Your task to perform on an android device: turn notification dots off Image 0: 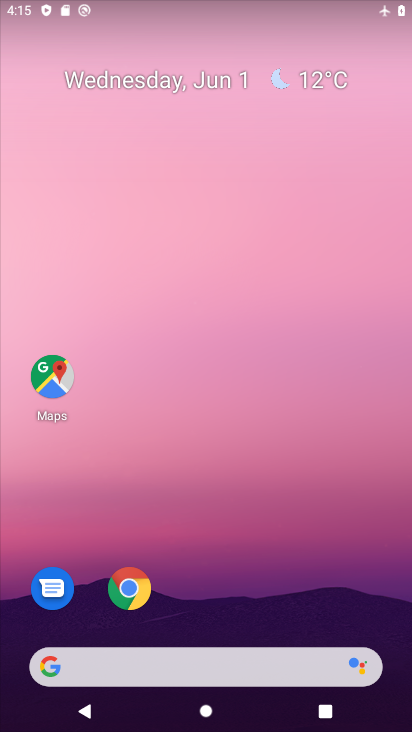
Step 0: drag from (317, 565) to (265, 42)
Your task to perform on an android device: turn notification dots off Image 1: 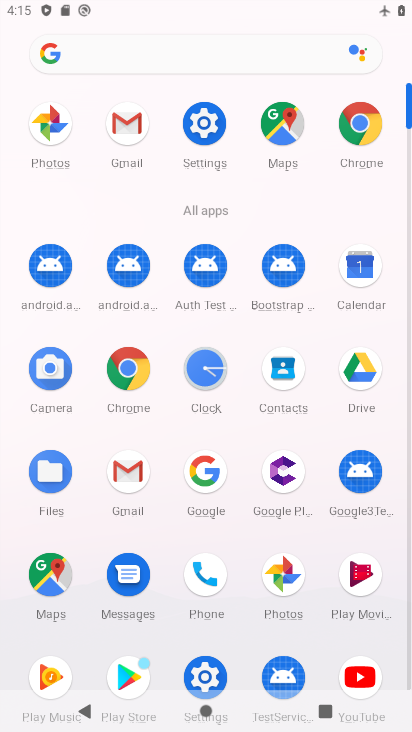
Step 1: click (210, 130)
Your task to perform on an android device: turn notification dots off Image 2: 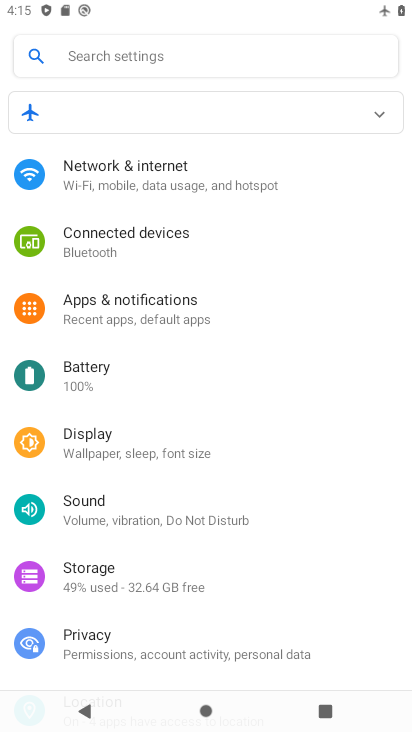
Step 2: click (183, 308)
Your task to perform on an android device: turn notification dots off Image 3: 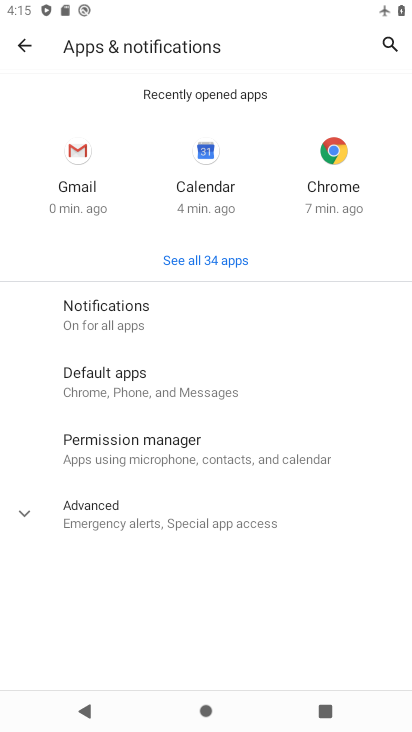
Step 3: click (120, 339)
Your task to perform on an android device: turn notification dots off Image 4: 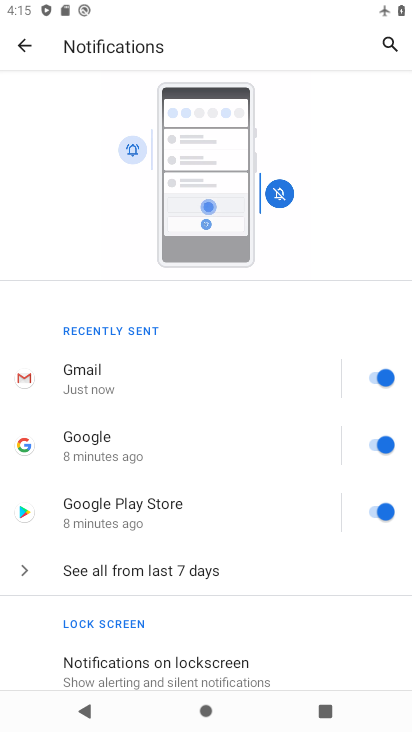
Step 4: drag from (190, 597) to (215, 126)
Your task to perform on an android device: turn notification dots off Image 5: 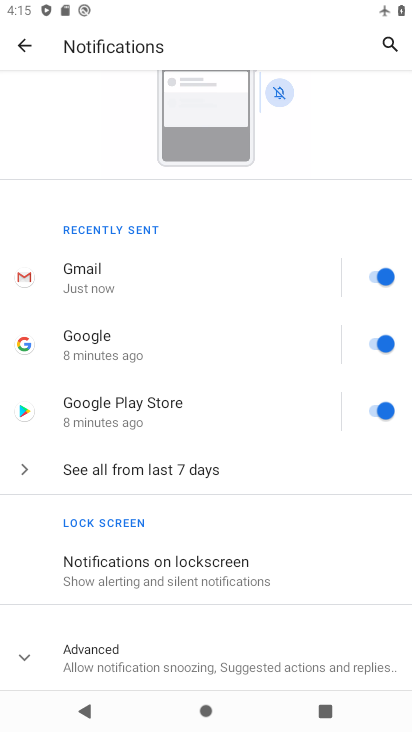
Step 5: click (158, 648)
Your task to perform on an android device: turn notification dots off Image 6: 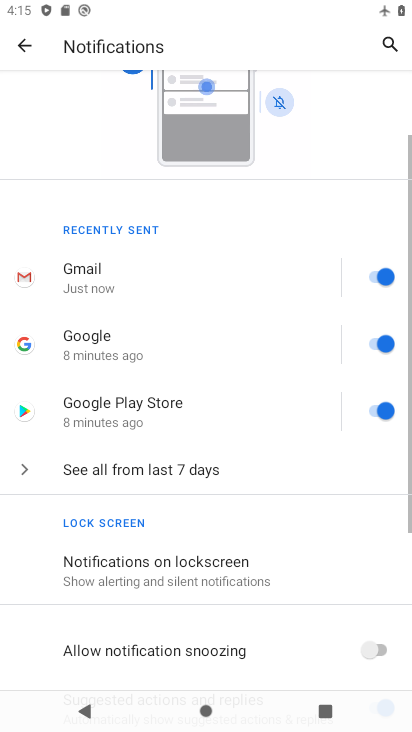
Step 6: click (168, 140)
Your task to perform on an android device: turn notification dots off Image 7: 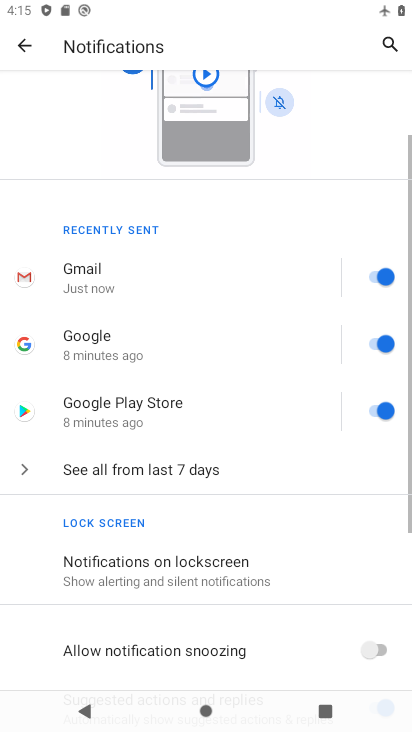
Step 7: drag from (274, 639) to (335, 315)
Your task to perform on an android device: turn notification dots off Image 8: 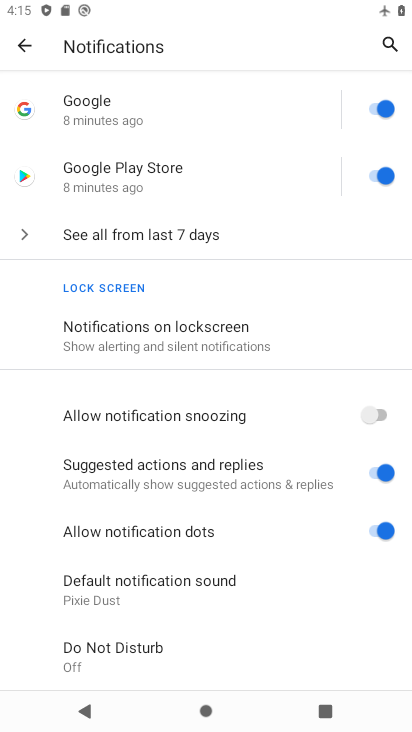
Step 8: drag from (289, 603) to (330, 234)
Your task to perform on an android device: turn notification dots off Image 9: 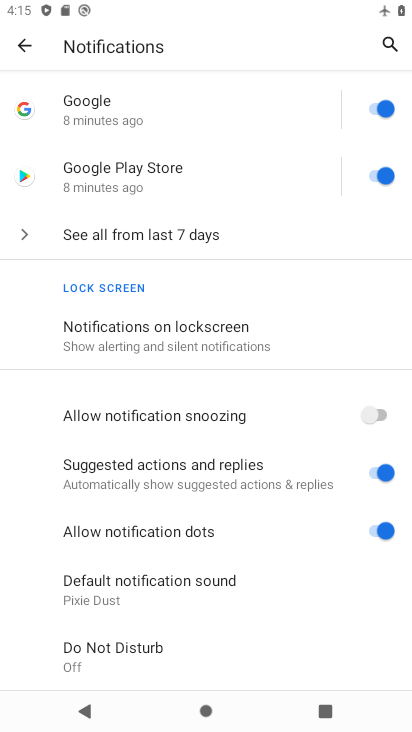
Step 9: click (386, 535)
Your task to perform on an android device: turn notification dots off Image 10: 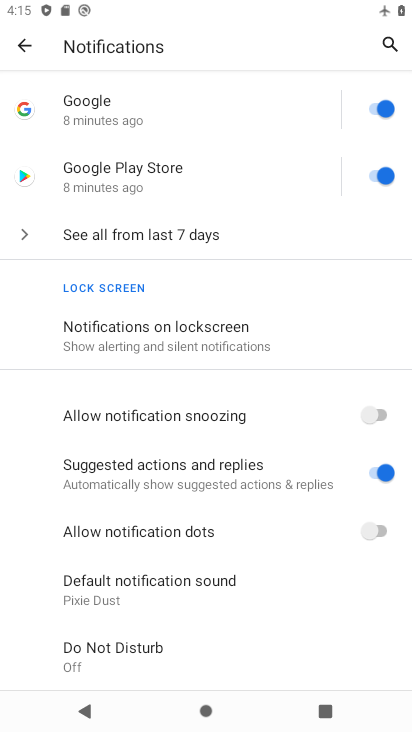
Step 10: task complete